Your task to perform on an android device: turn on bluetooth scan Image 0: 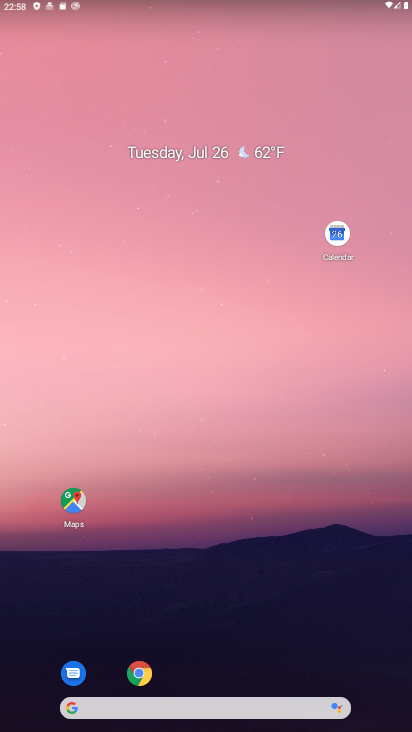
Step 0: drag from (288, 660) to (198, 194)
Your task to perform on an android device: turn on bluetooth scan Image 1: 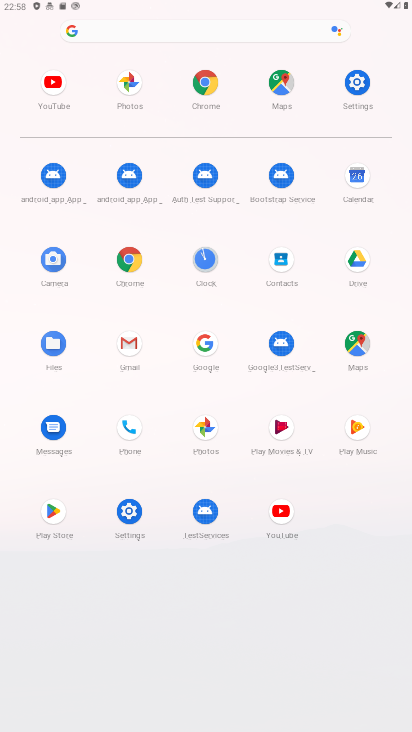
Step 1: click (351, 82)
Your task to perform on an android device: turn on bluetooth scan Image 2: 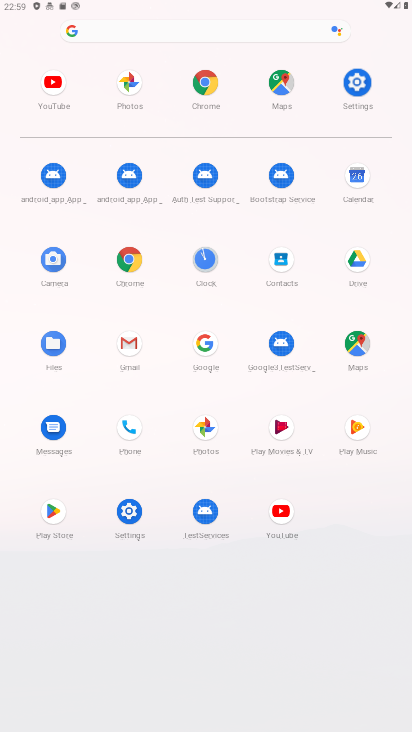
Step 2: click (354, 85)
Your task to perform on an android device: turn on bluetooth scan Image 3: 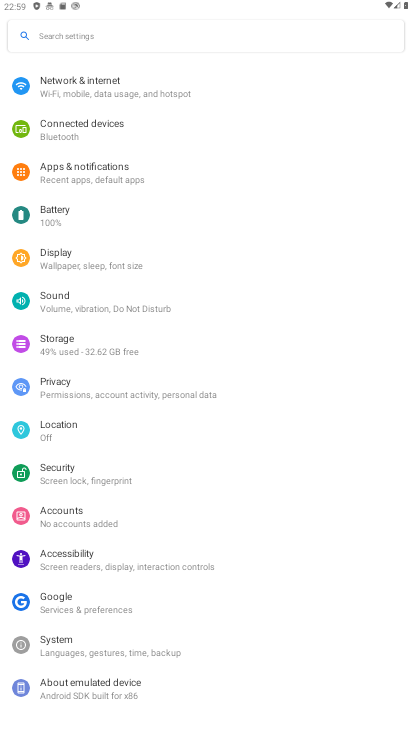
Step 3: click (354, 86)
Your task to perform on an android device: turn on bluetooth scan Image 4: 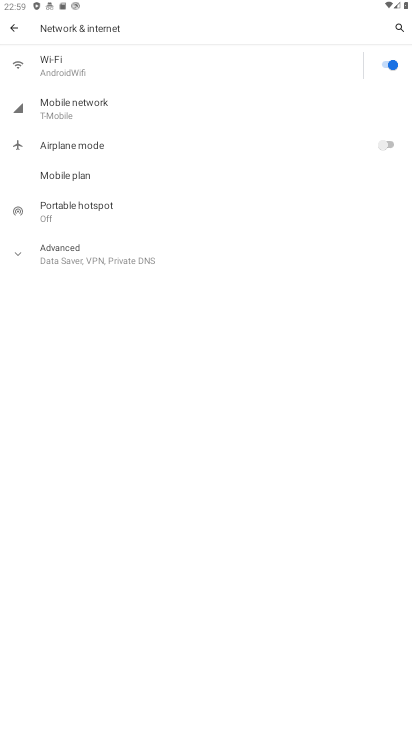
Step 4: click (14, 27)
Your task to perform on an android device: turn on bluetooth scan Image 5: 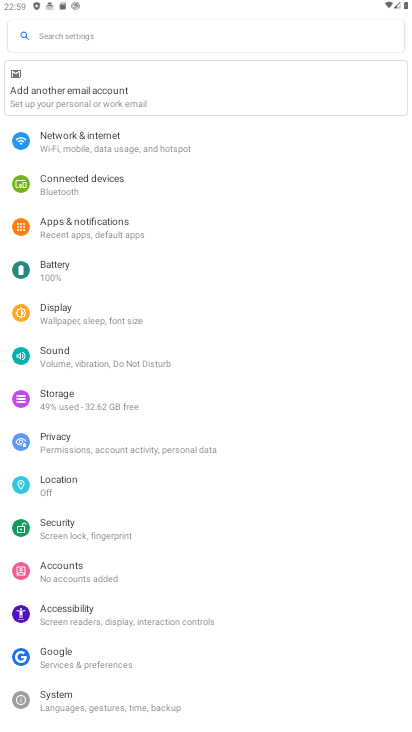
Step 5: click (53, 475)
Your task to perform on an android device: turn on bluetooth scan Image 6: 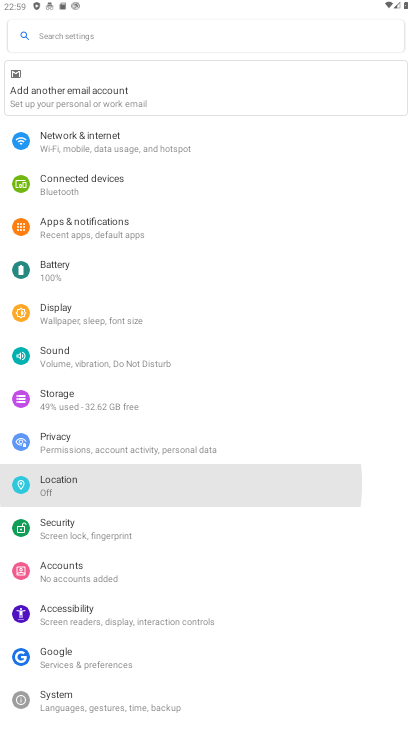
Step 6: click (60, 484)
Your task to perform on an android device: turn on bluetooth scan Image 7: 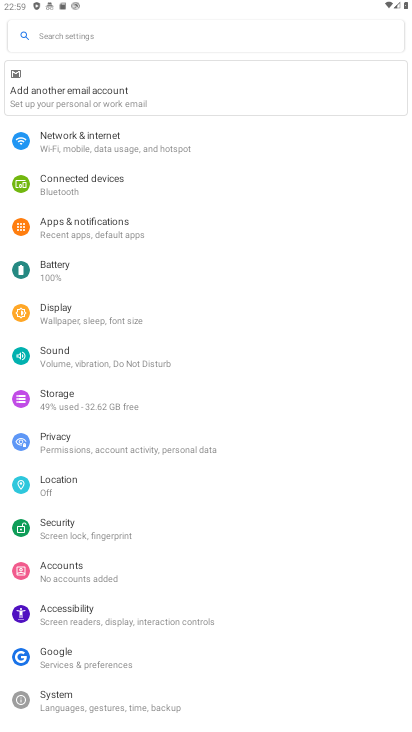
Step 7: click (60, 484)
Your task to perform on an android device: turn on bluetooth scan Image 8: 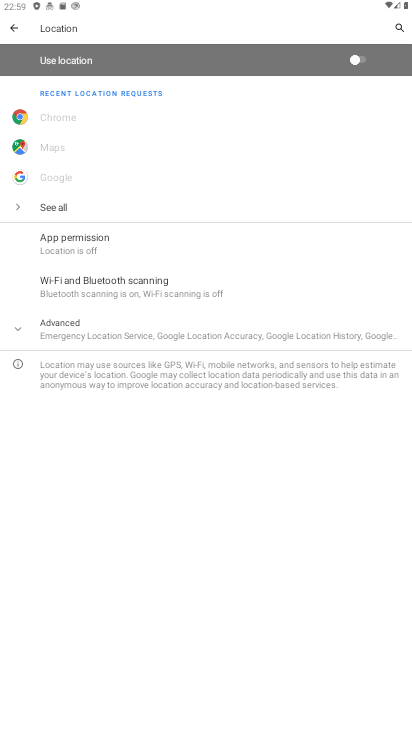
Step 8: click (95, 276)
Your task to perform on an android device: turn on bluetooth scan Image 9: 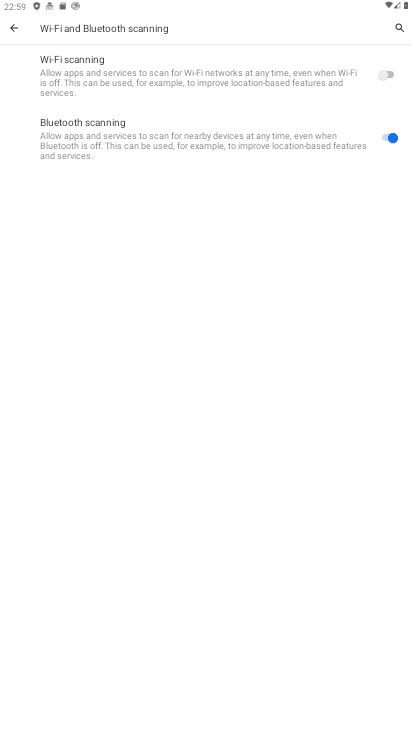
Step 9: task complete